Your task to perform on an android device: turn off translation in the chrome app Image 0: 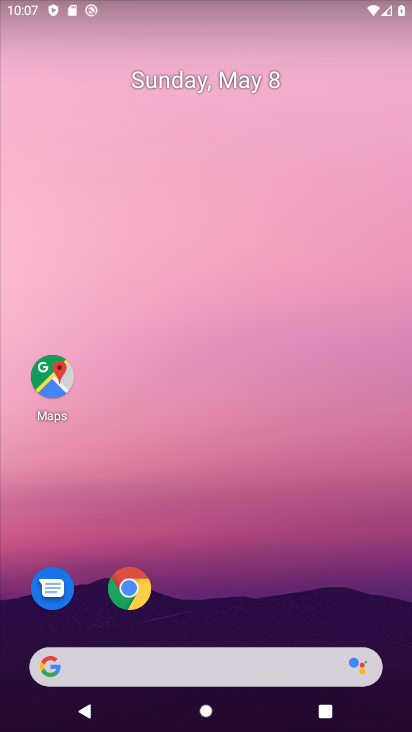
Step 0: click (141, 597)
Your task to perform on an android device: turn off translation in the chrome app Image 1: 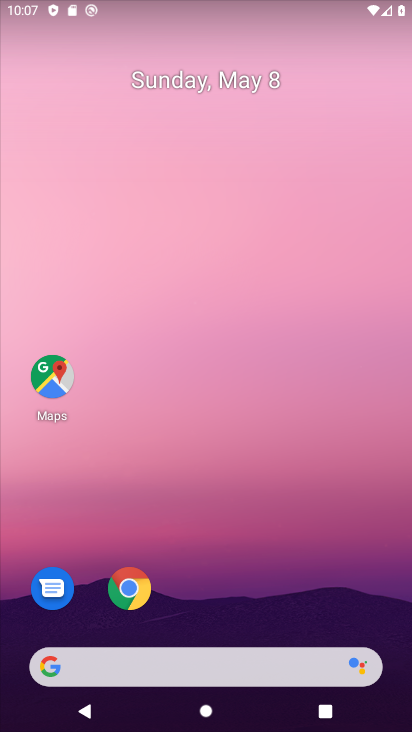
Step 1: click (141, 597)
Your task to perform on an android device: turn off translation in the chrome app Image 2: 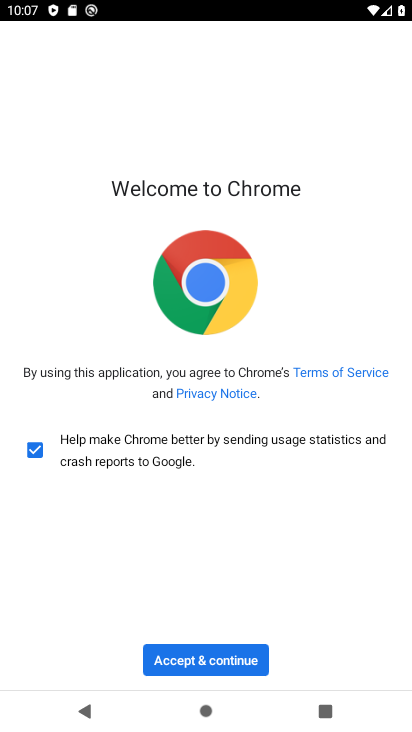
Step 2: click (203, 656)
Your task to perform on an android device: turn off translation in the chrome app Image 3: 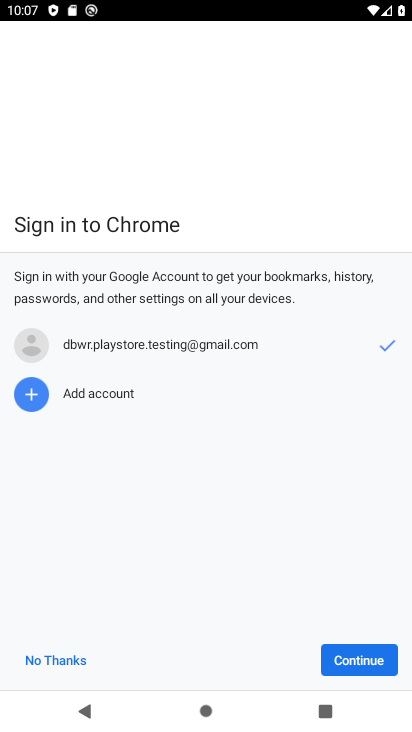
Step 3: click (381, 667)
Your task to perform on an android device: turn off translation in the chrome app Image 4: 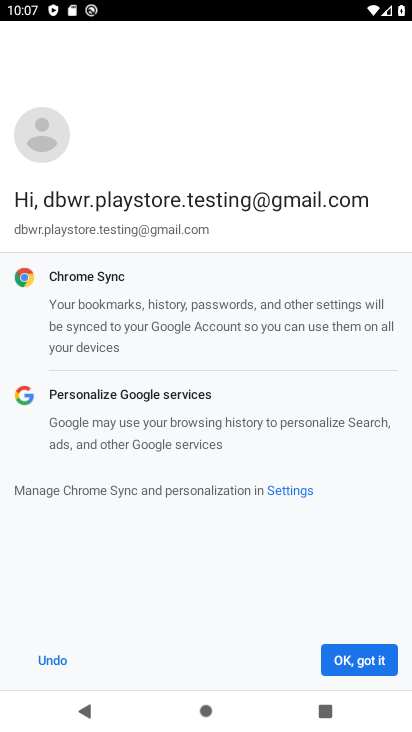
Step 4: click (381, 668)
Your task to perform on an android device: turn off translation in the chrome app Image 5: 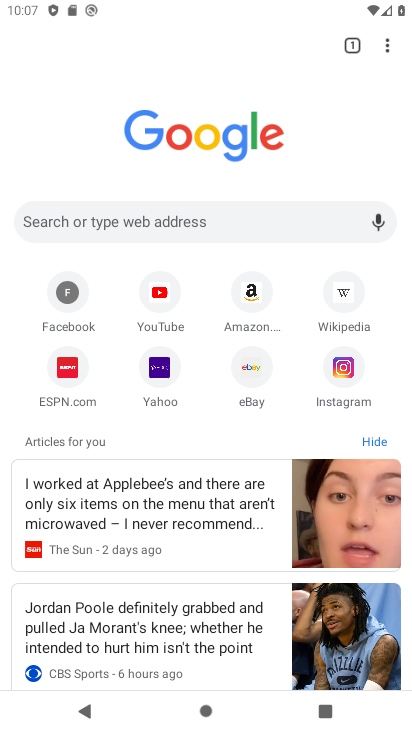
Step 5: drag from (387, 54) to (245, 391)
Your task to perform on an android device: turn off translation in the chrome app Image 6: 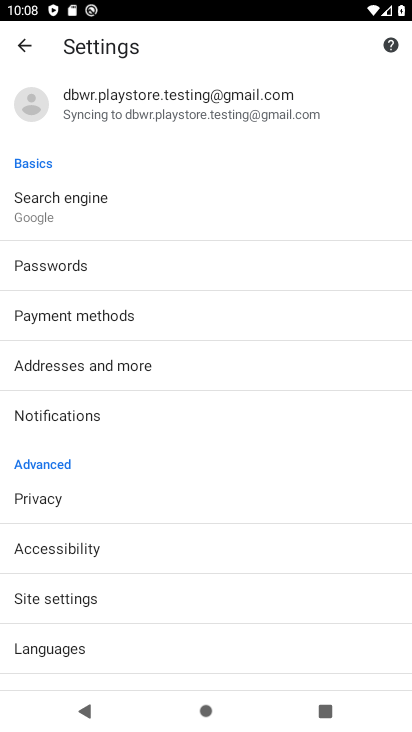
Step 6: drag from (185, 652) to (219, 545)
Your task to perform on an android device: turn off translation in the chrome app Image 7: 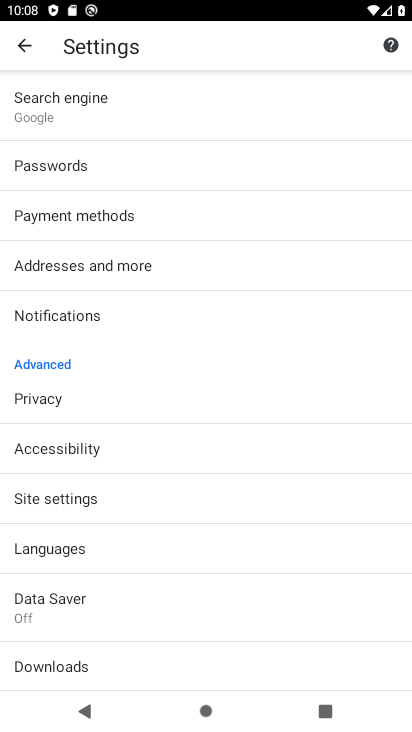
Step 7: click (159, 557)
Your task to perform on an android device: turn off translation in the chrome app Image 8: 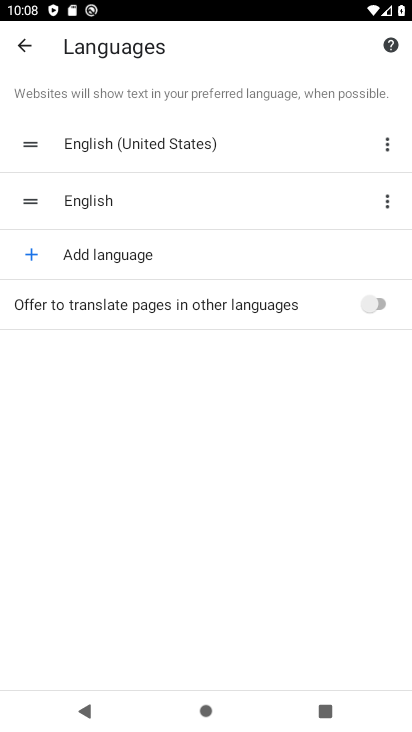
Step 8: task complete